Your task to perform on an android device: Go to wifi settings Image 0: 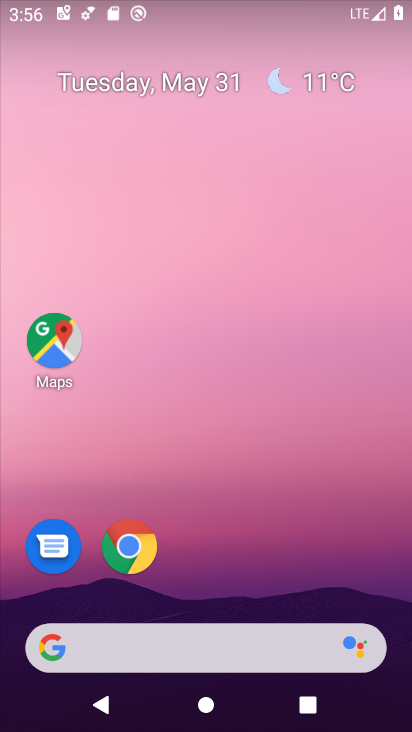
Step 0: drag from (292, 553) to (230, 86)
Your task to perform on an android device: Go to wifi settings Image 1: 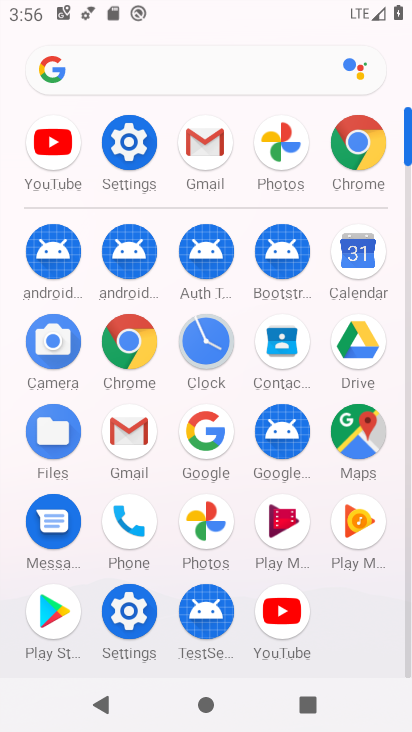
Step 1: click (126, 145)
Your task to perform on an android device: Go to wifi settings Image 2: 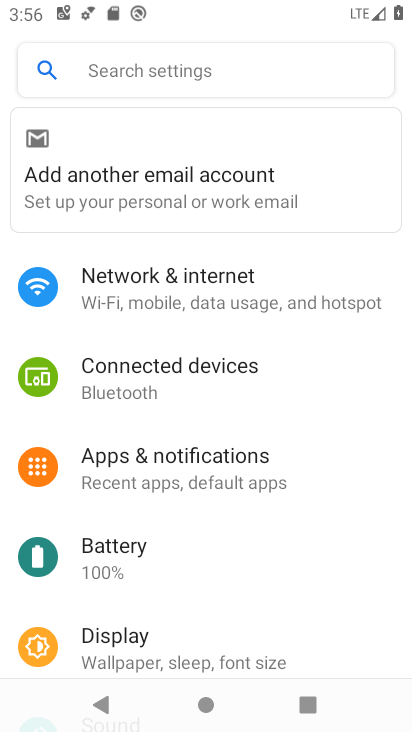
Step 2: click (174, 269)
Your task to perform on an android device: Go to wifi settings Image 3: 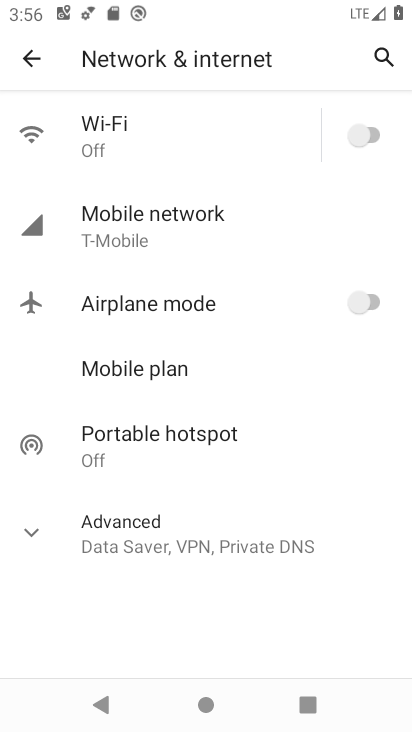
Step 3: click (185, 128)
Your task to perform on an android device: Go to wifi settings Image 4: 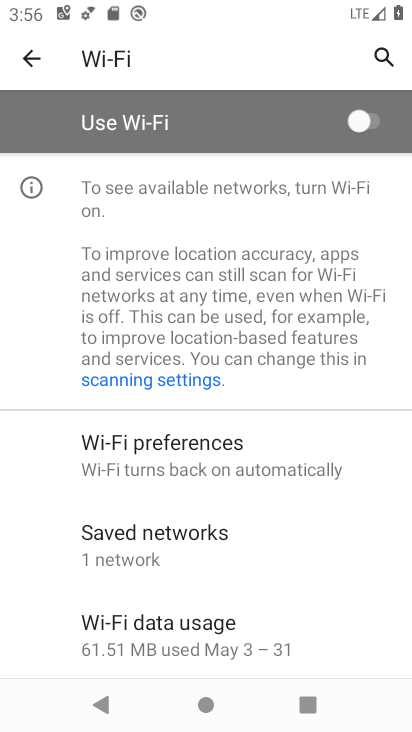
Step 4: task complete